Your task to perform on an android device: clear history in the chrome app Image 0: 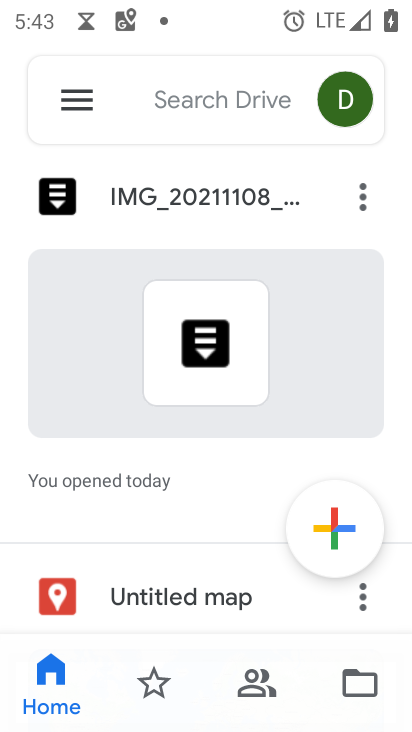
Step 0: press home button
Your task to perform on an android device: clear history in the chrome app Image 1: 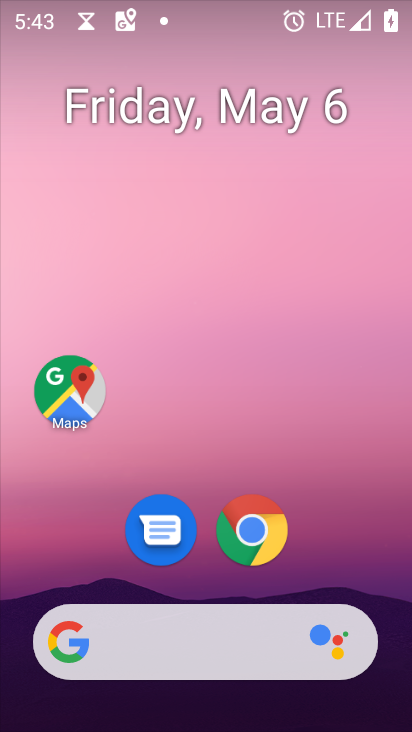
Step 1: click (260, 526)
Your task to perform on an android device: clear history in the chrome app Image 2: 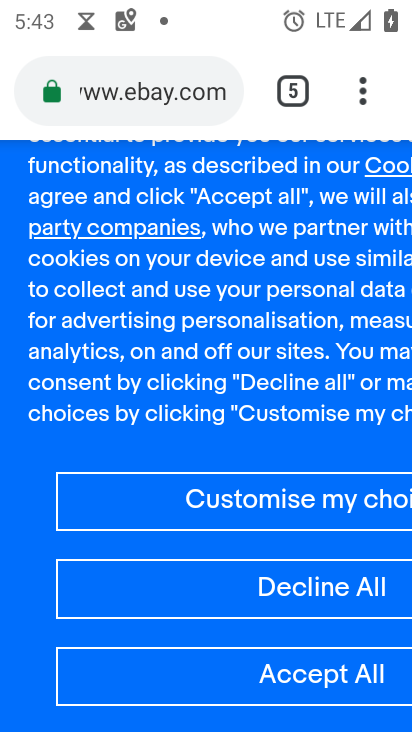
Step 2: click (362, 81)
Your task to perform on an android device: clear history in the chrome app Image 3: 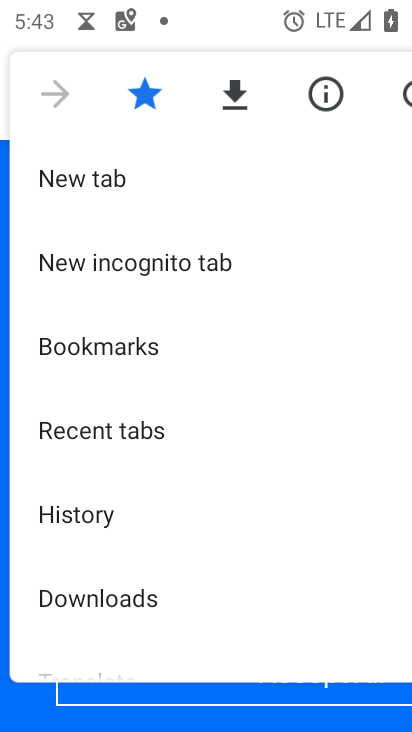
Step 3: click (154, 505)
Your task to perform on an android device: clear history in the chrome app Image 4: 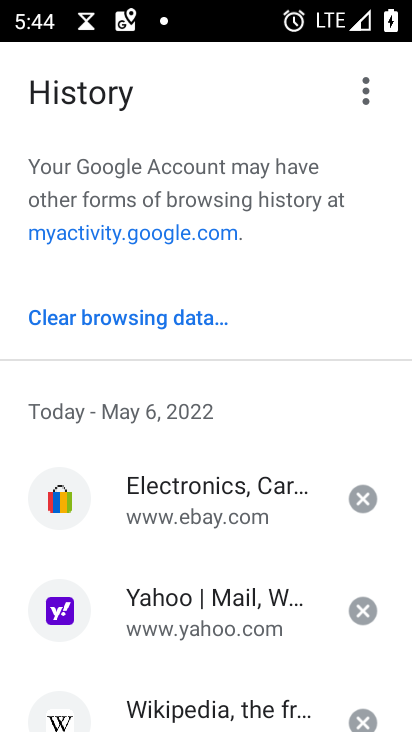
Step 4: click (150, 316)
Your task to perform on an android device: clear history in the chrome app Image 5: 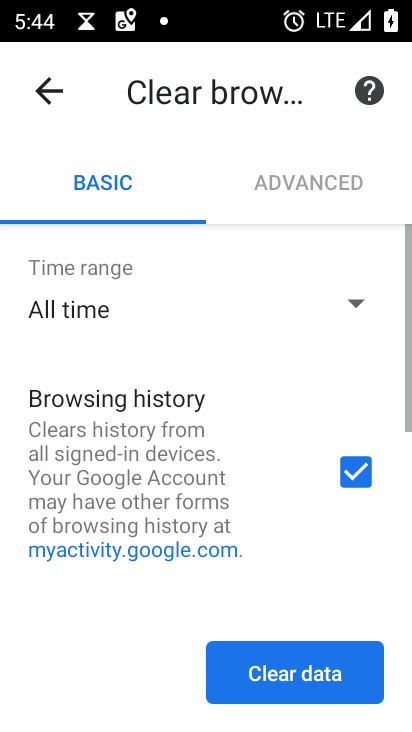
Step 5: click (303, 666)
Your task to perform on an android device: clear history in the chrome app Image 6: 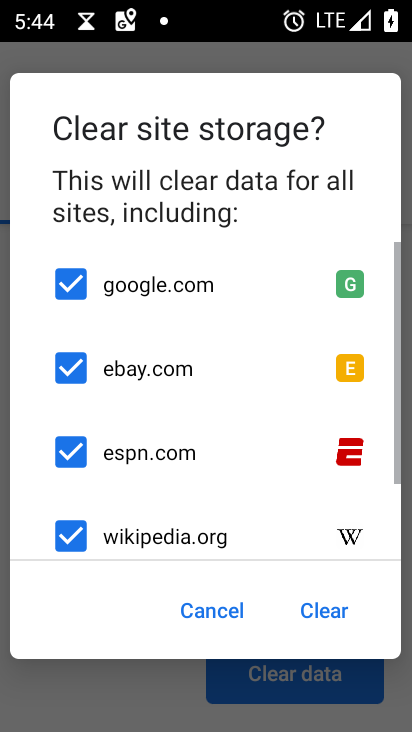
Step 6: click (321, 605)
Your task to perform on an android device: clear history in the chrome app Image 7: 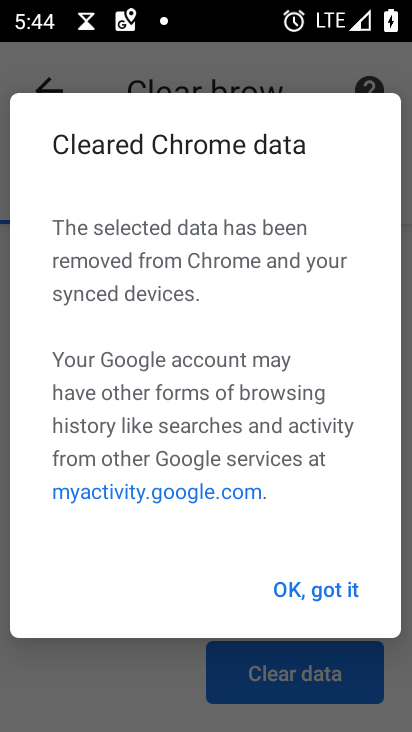
Step 7: click (323, 585)
Your task to perform on an android device: clear history in the chrome app Image 8: 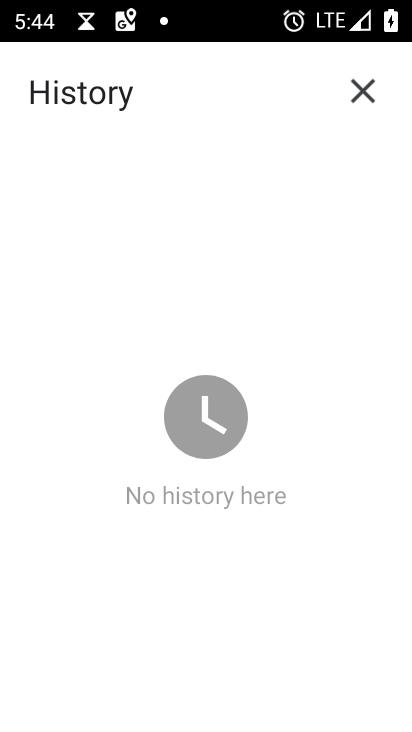
Step 8: task complete